Your task to perform on an android device: set an alarm Image 0: 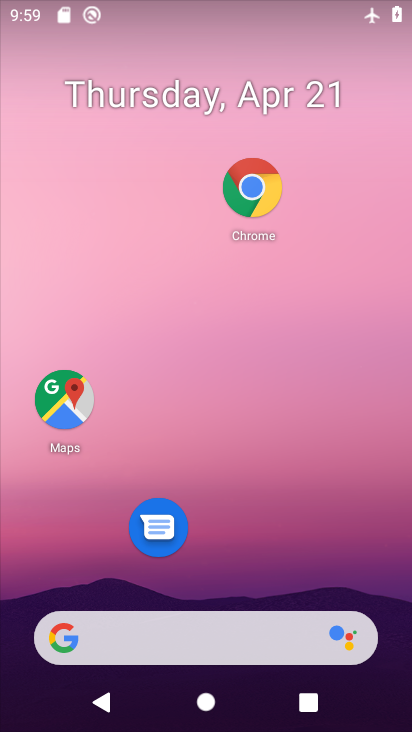
Step 0: drag from (248, 561) to (297, 166)
Your task to perform on an android device: set an alarm Image 1: 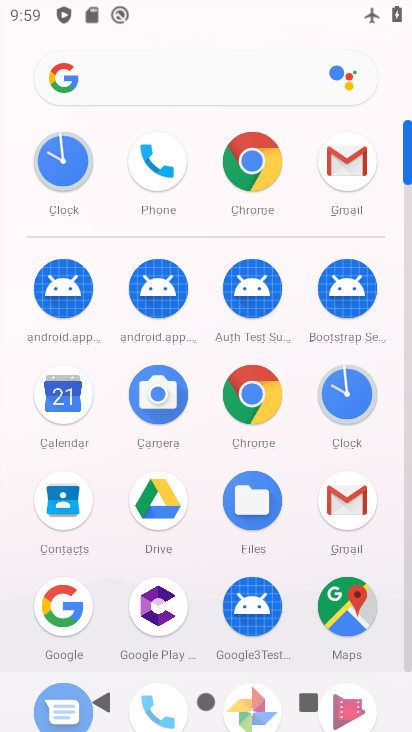
Step 1: click (349, 397)
Your task to perform on an android device: set an alarm Image 2: 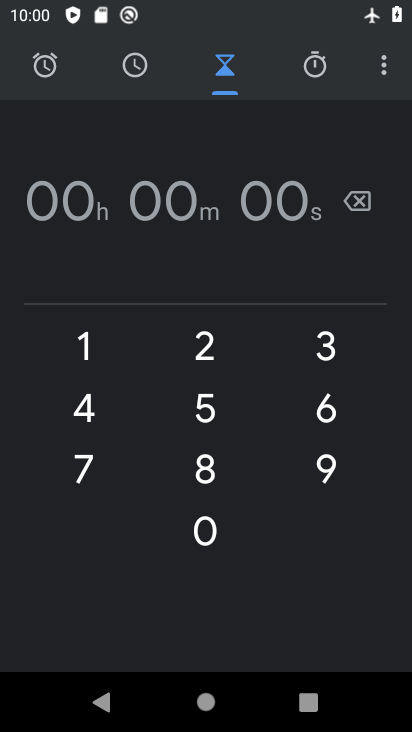
Step 2: click (59, 75)
Your task to perform on an android device: set an alarm Image 3: 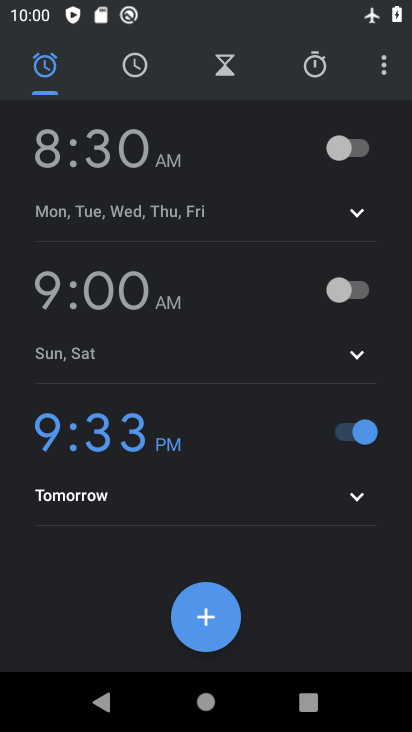
Step 3: click (211, 625)
Your task to perform on an android device: set an alarm Image 4: 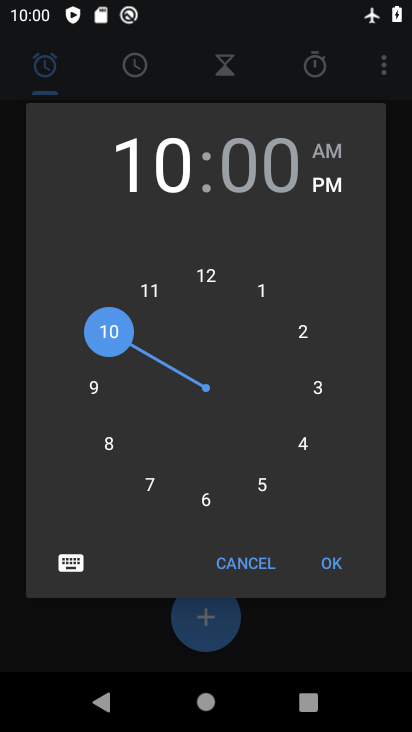
Step 4: click (327, 567)
Your task to perform on an android device: set an alarm Image 5: 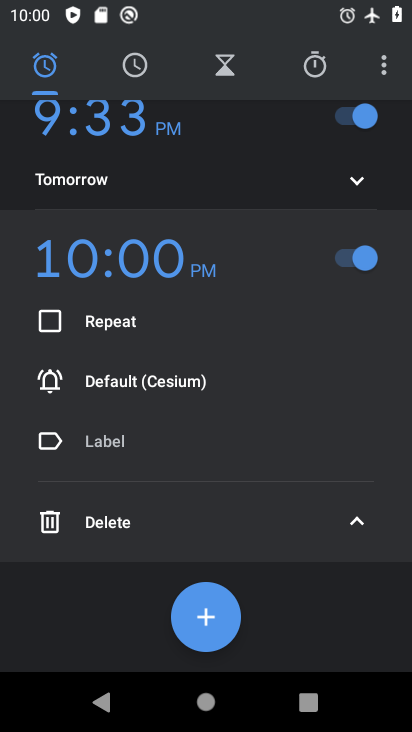
Step 5: task complete